Your task to perform on an android device: search for starred emails in the gmail app Image 0: 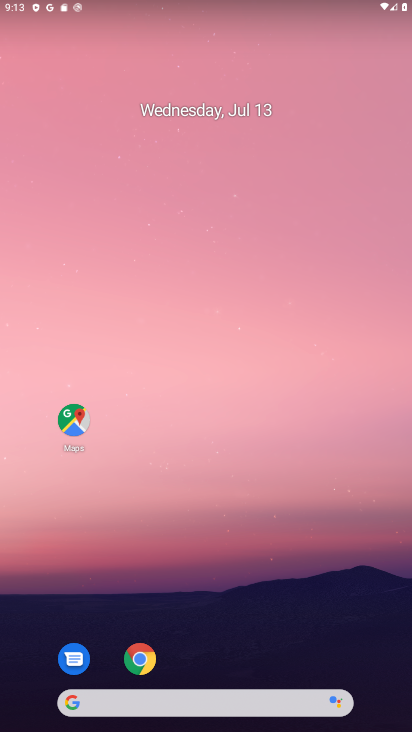
Step 0: drag from (229, 663) to (237, 190)
Your task to perform on an android device: search for starred emails in the gmail app Image 1: 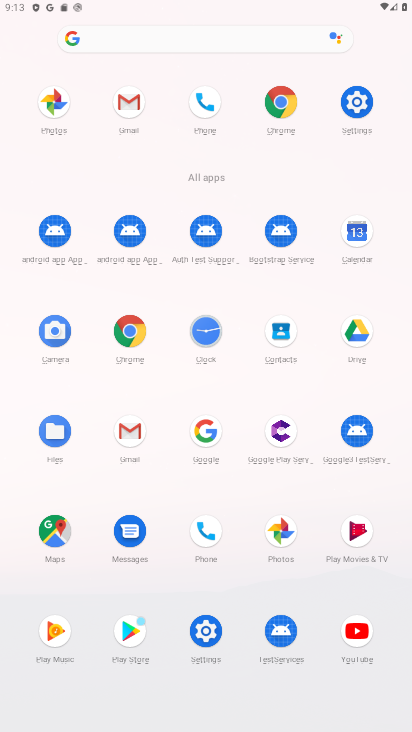
Step 1: click (133, 435)
Your task to perform on an android device: search for starred emails in the gmail app Image 2: 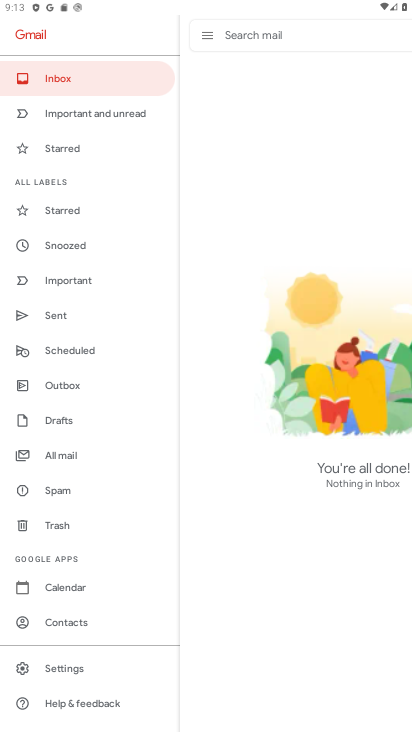
Step 2: click (66, 157)
Your task to perform on an android device: search for starred emails in the gmail app Image 3: 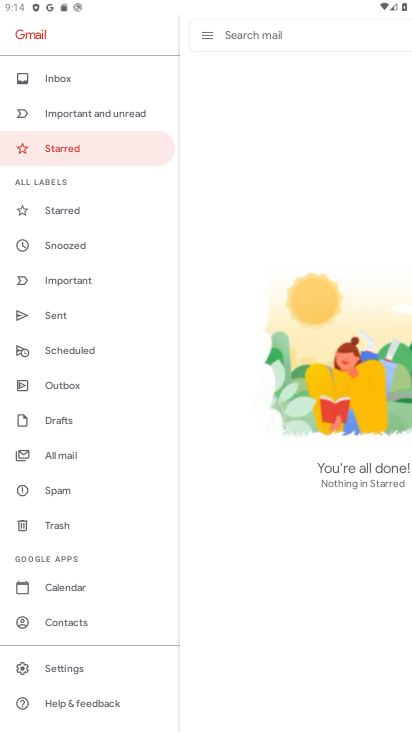
Step 3: task complete